Your task to perform on an android device: Open battery settings Image 0: 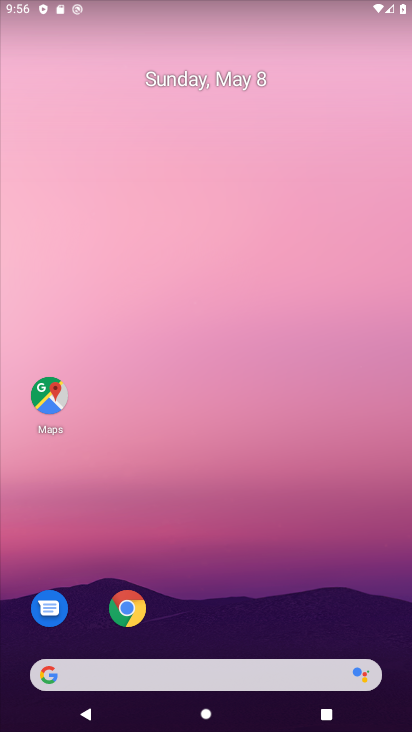
Step 0: click (326, 500)
Your task to perform on an android device: Open battery settings Image 1: 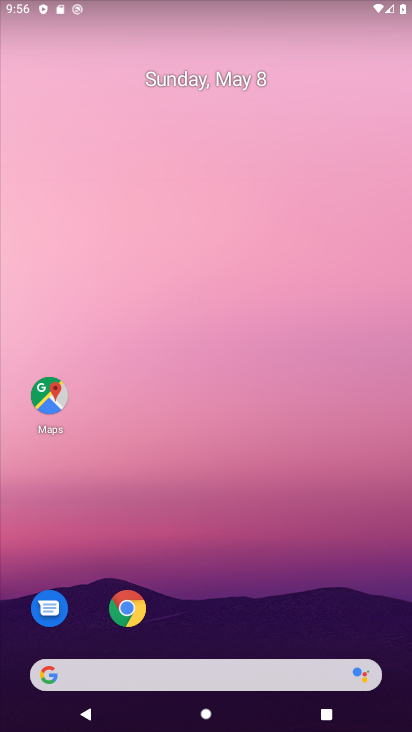
Step 1: drag from (178, 642) to (284, 199)
Your task to perform on an android device: Open battery settings Image 2: 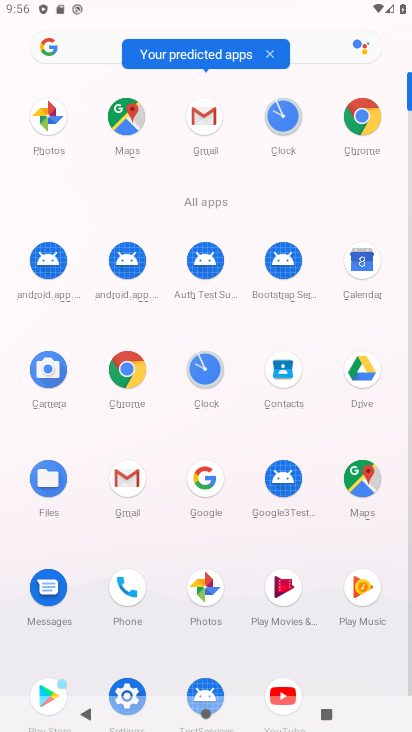
Step 2: drag from (165, 646) to (191, 528)
Your task to perform on an android device: Open battery settings Image 3: 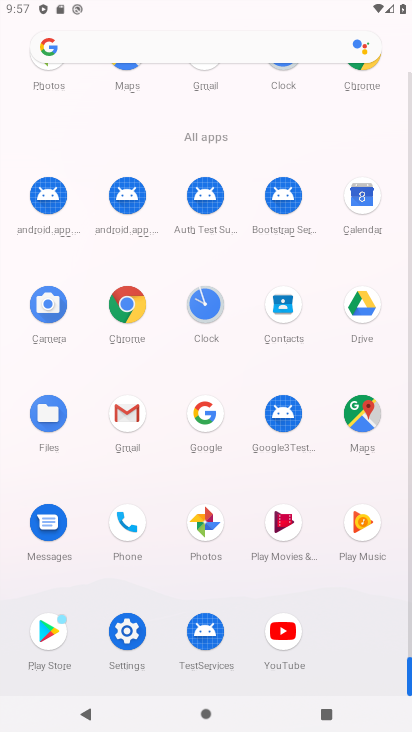
Step 3: click (129, 635)
Your task to perform on an android device: Open battery settings Image 4: 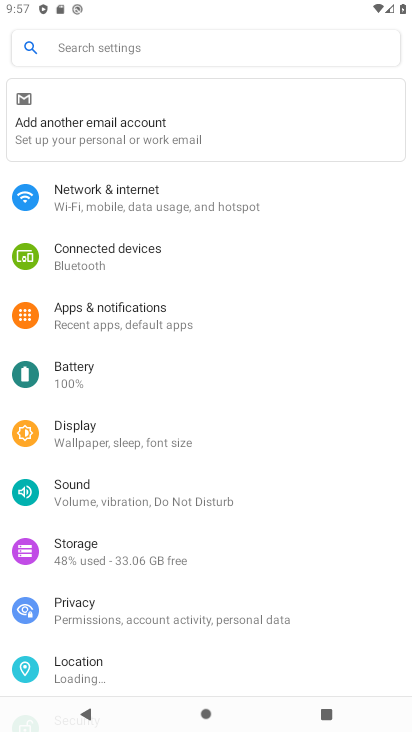
Step 4: click (195, 375)
Your task to perform on an android device: Open battery settings Image 5: 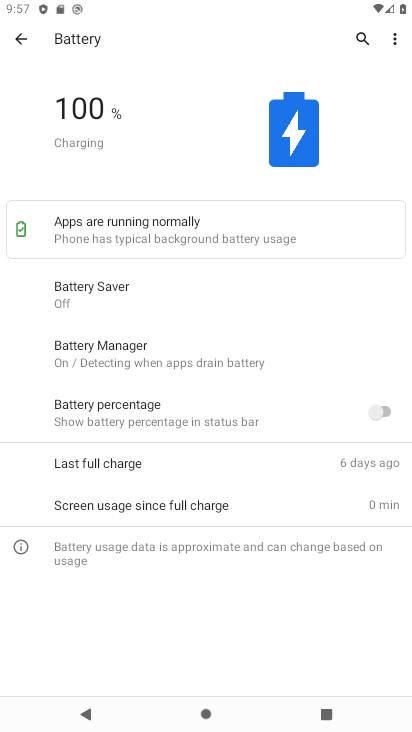
Step 5: task complete